Your task to perform on an android device: turn off wifi Image 0: 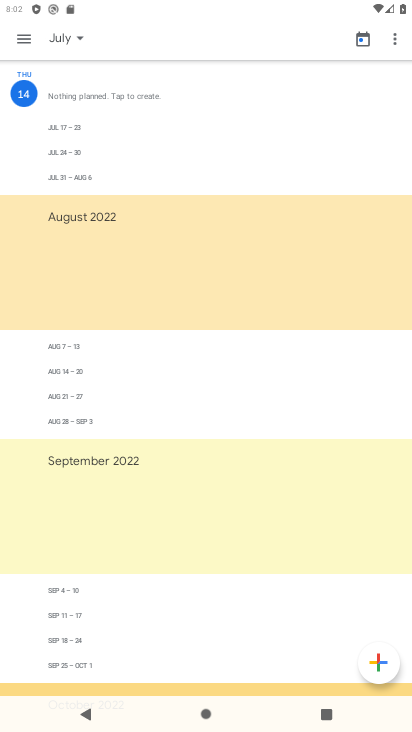
Step 0: press home button
Your task to perform on an android device: turn off wifi Image 1: 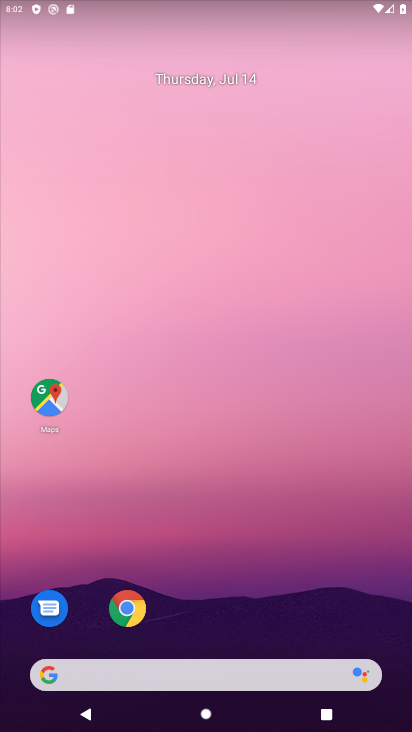
Step 1: drag from (218, 526) to (137, 56)
Your task to perform on an android device: turn off wifi Image 2: 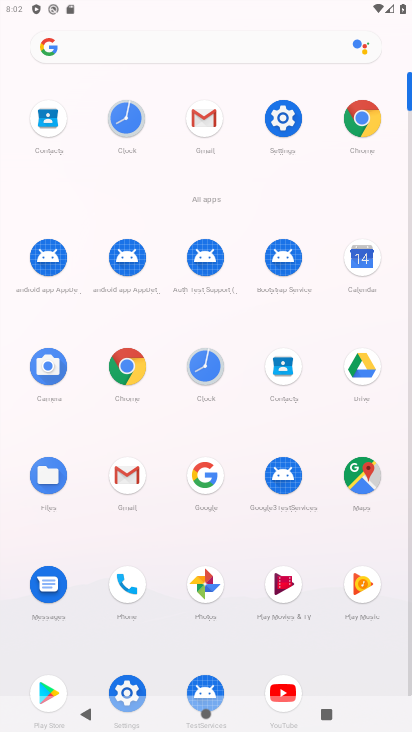
Step 2: click (289, 116)
Your task to perform on an android device: turn off wifi Image 3: 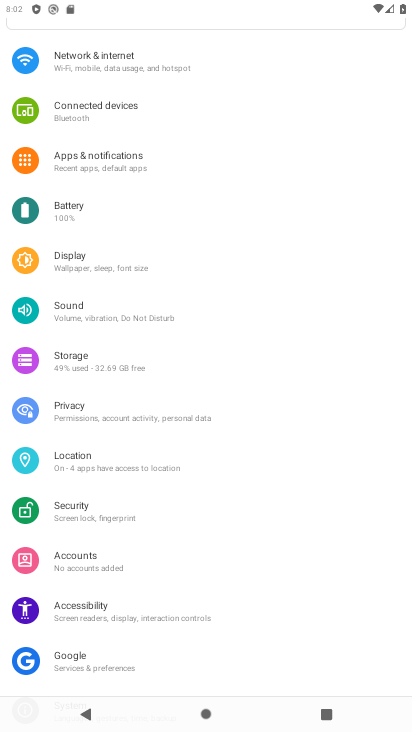
Step 3: click (117, 52)
Your task to perform on an android device: turn off wifi Image 4: 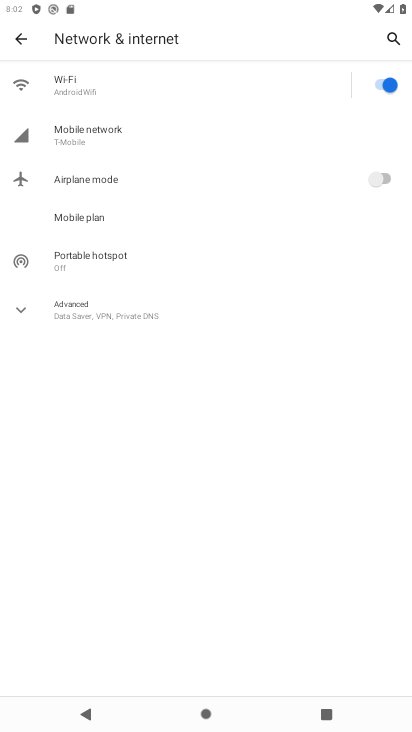
Step 4: click (383, 84)
Your task to perform on an android device: turn off wifi Image 5: 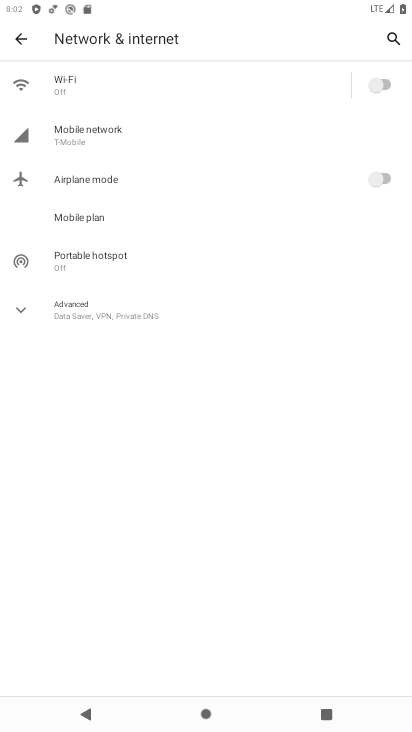
Step 5: task complete